Your task to perform on an android device: turn off notifications settings in the gmail app Image 0: 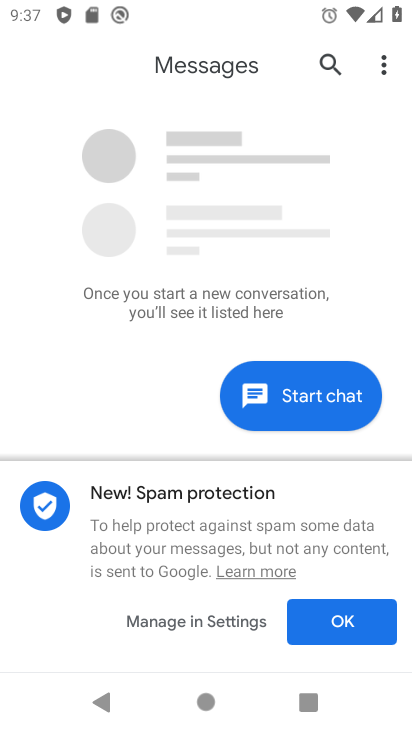
Step 0: drag from (244, 589) to (237, 438)
Your task to perform on an android device: turn off notifications settings in the gmail app Image 1: 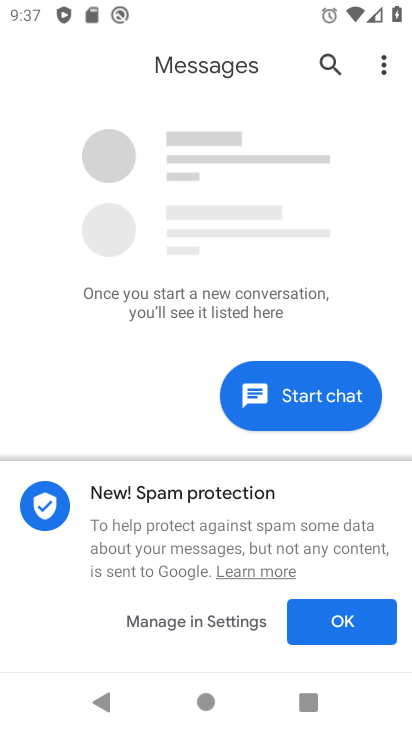
Step 1: press home button
Your task to perform on an android device: turn off notifications settings in the gmail app Image 2: 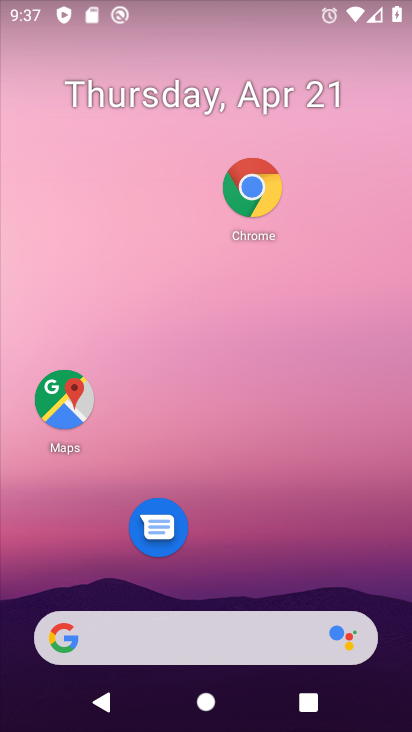
Step 2: drag from (266, 607) to (316, 218)
Your task to perform on an android device: turn off notifications settings in the gmail app Image 3: 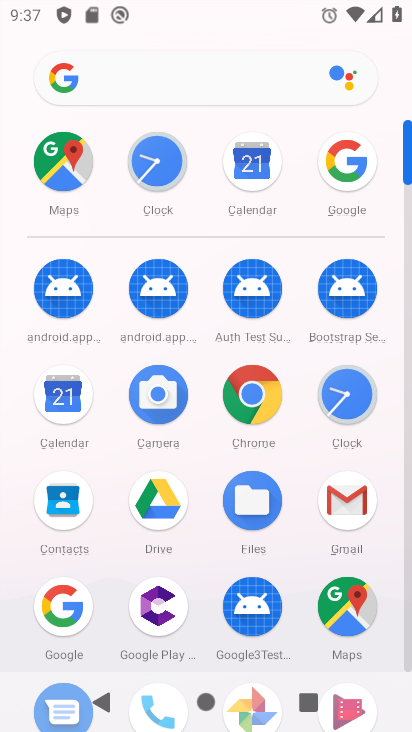
Step 3: click (357, 503)
Your task to perform on an android device: turn off notifications settings in the gmail app Image 4: 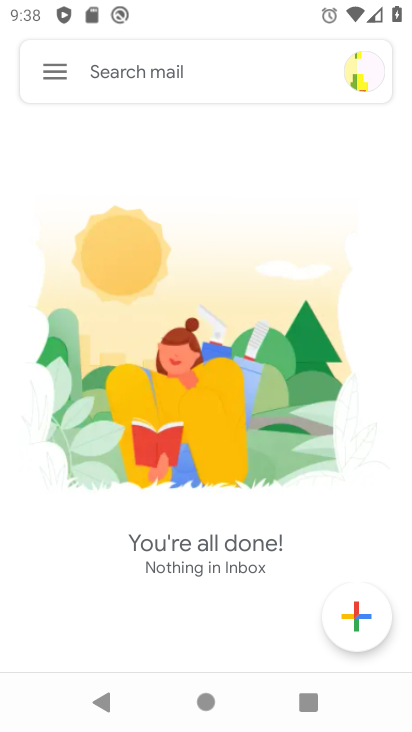
Step 4: click (62, 79)
Your task to perform on an android device: turn off notifications settings in the gmail app Image 5: 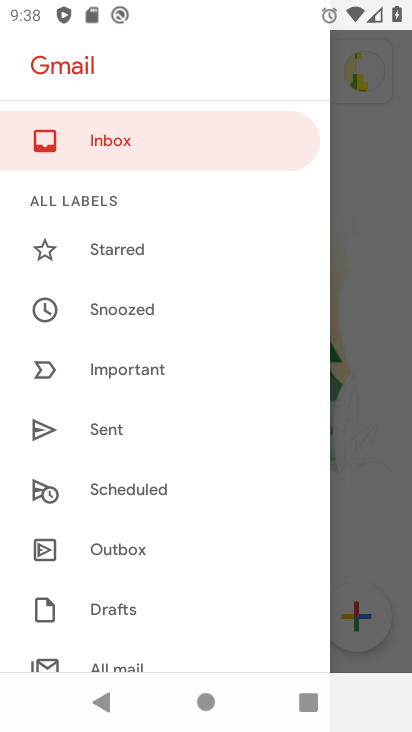
Step 5: drag from (140, 544) to (272, 33)
Your task to perform on an android device: turn off notifications settings in the gmail app Image 6: 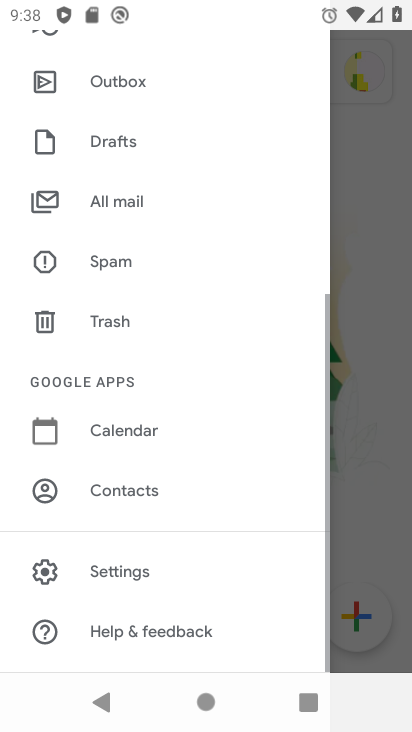
Step 6: click (150, 577)
Your task to perform on an android device: turn off notifications settings in the gmail app Image 7: 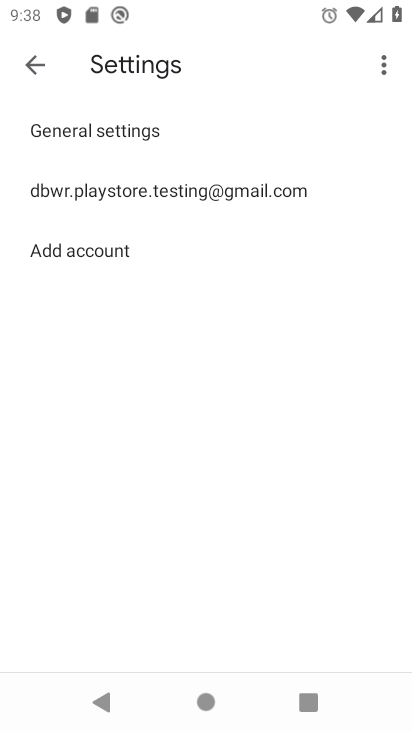
Step 7: click (206, 143)
Your task to perform on an android device: turn off notifications settings in the gmail app Image 8: 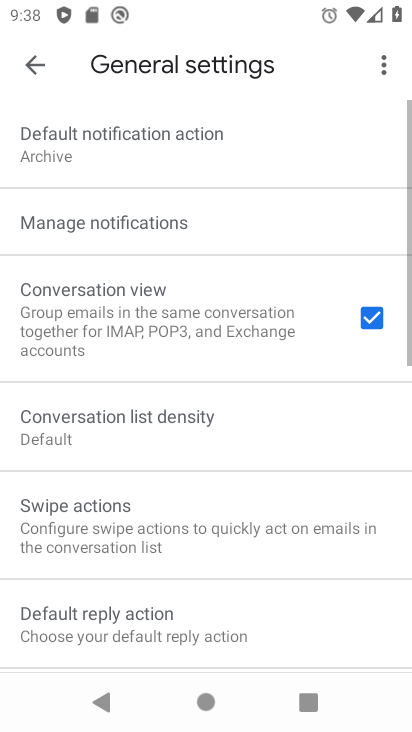
Step 8: click (181, 236)
Your task to perform on an android device: turn off notifications settings in the gmail app Image 9: 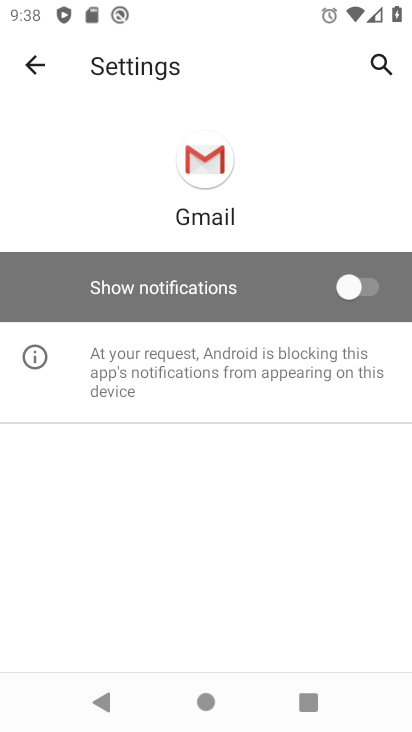
Step 9: task complete